Your task to perform on an android device: Search for usb-a on ebay, select the first entry, and add it to the cart. Image 0: 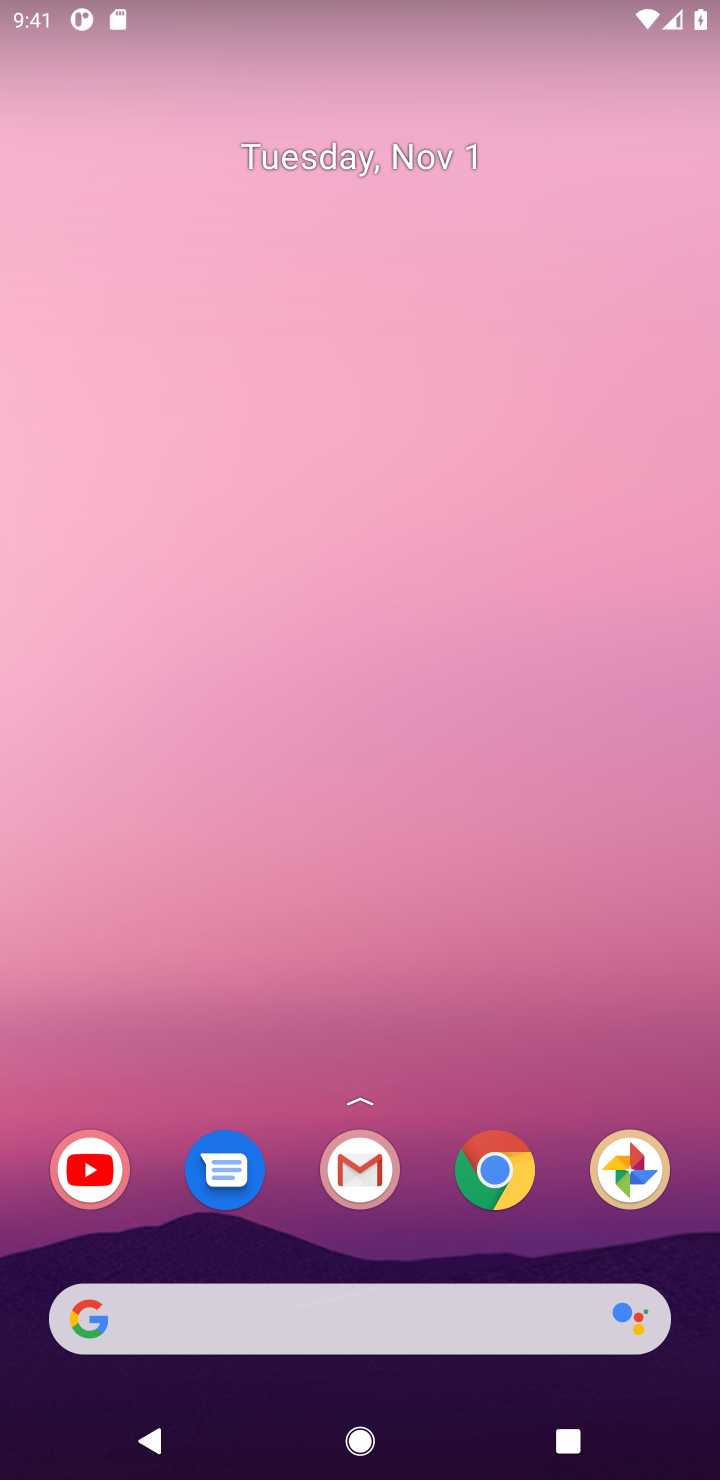
Step 0: click (84, 1317)
Your task to perform on an android device: Search for usb-a on ebay, select the first entry, and add it to the cart. Image 1: 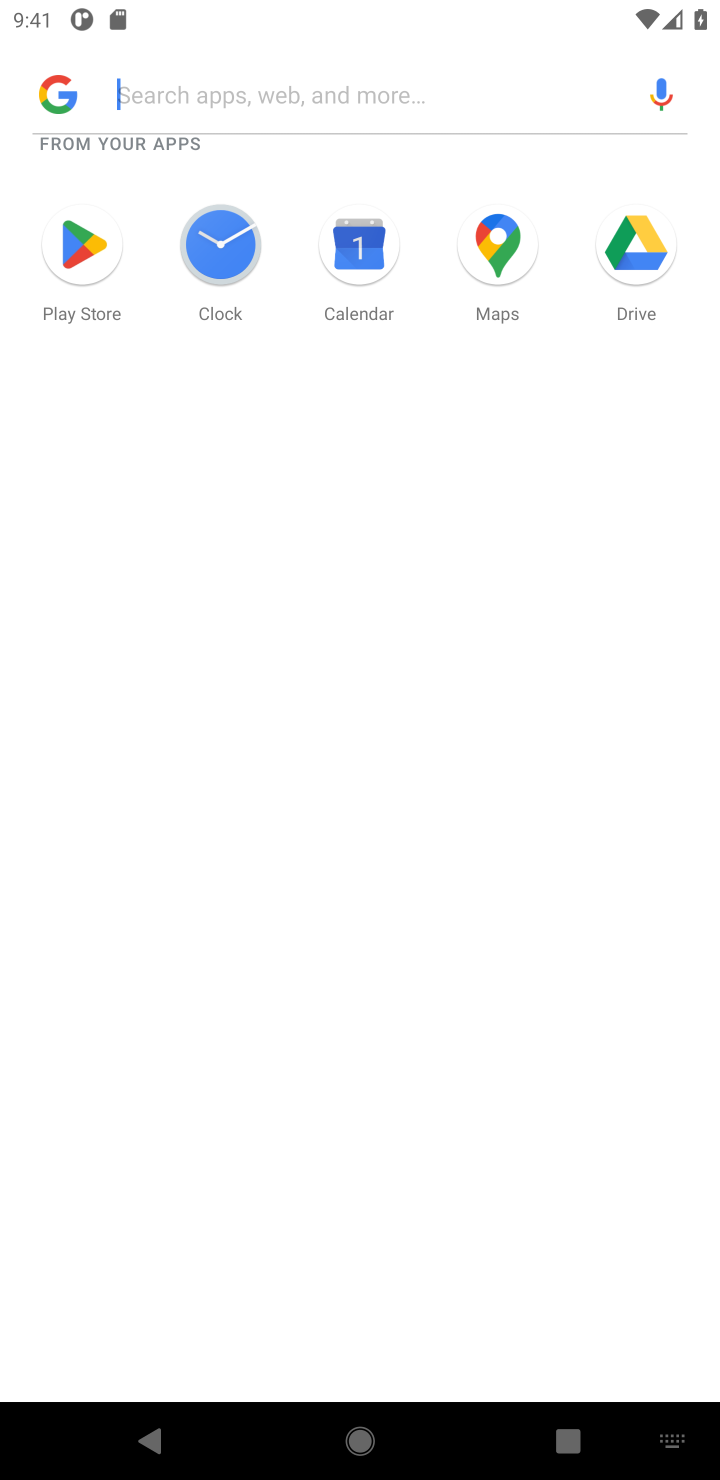
Step 1: press home button
Your task to perform on an android device: Search for usb-a on ebay, select the first entry, and add it to the cart. Image 2: 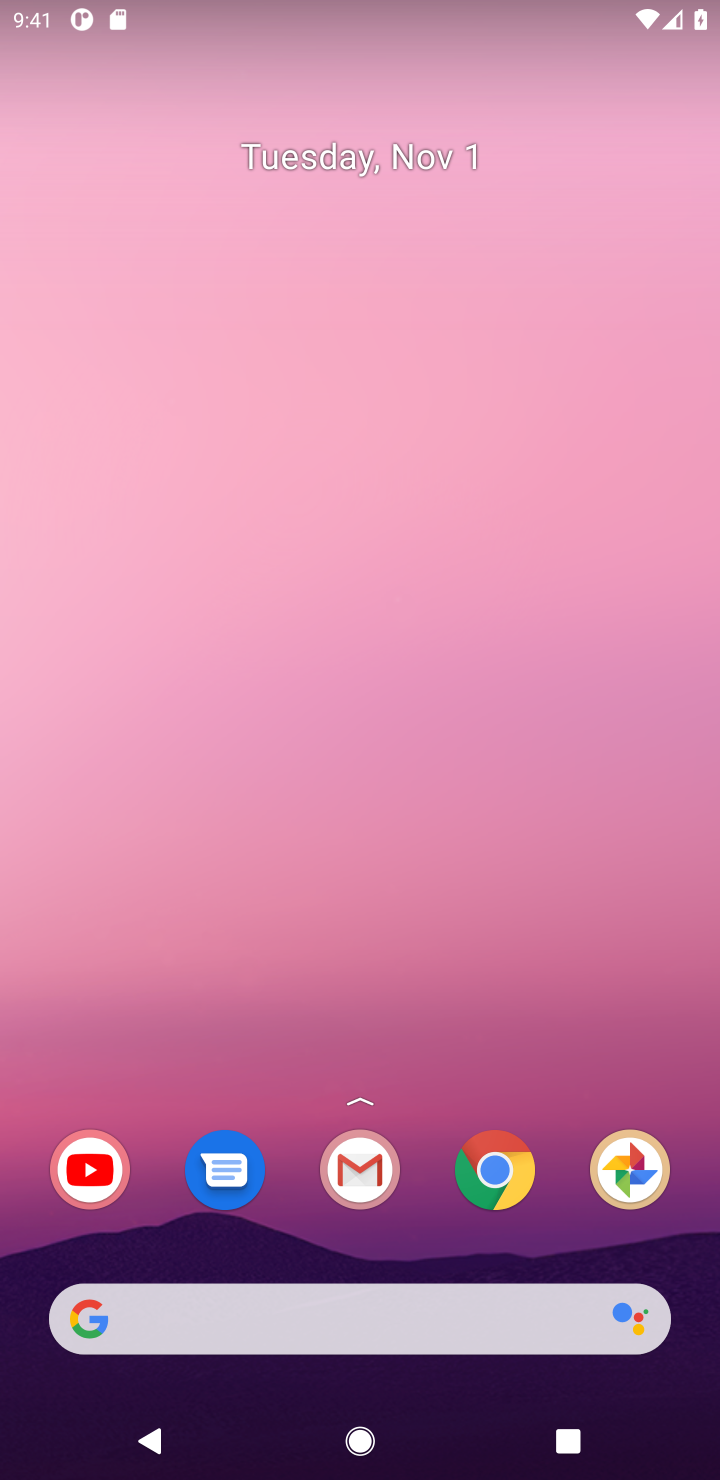
Step 2: click (489, 1169)
Your task to perform on an android device: Search for usb-a on ebay, select the first entry, and add it to the cart. Image 3: 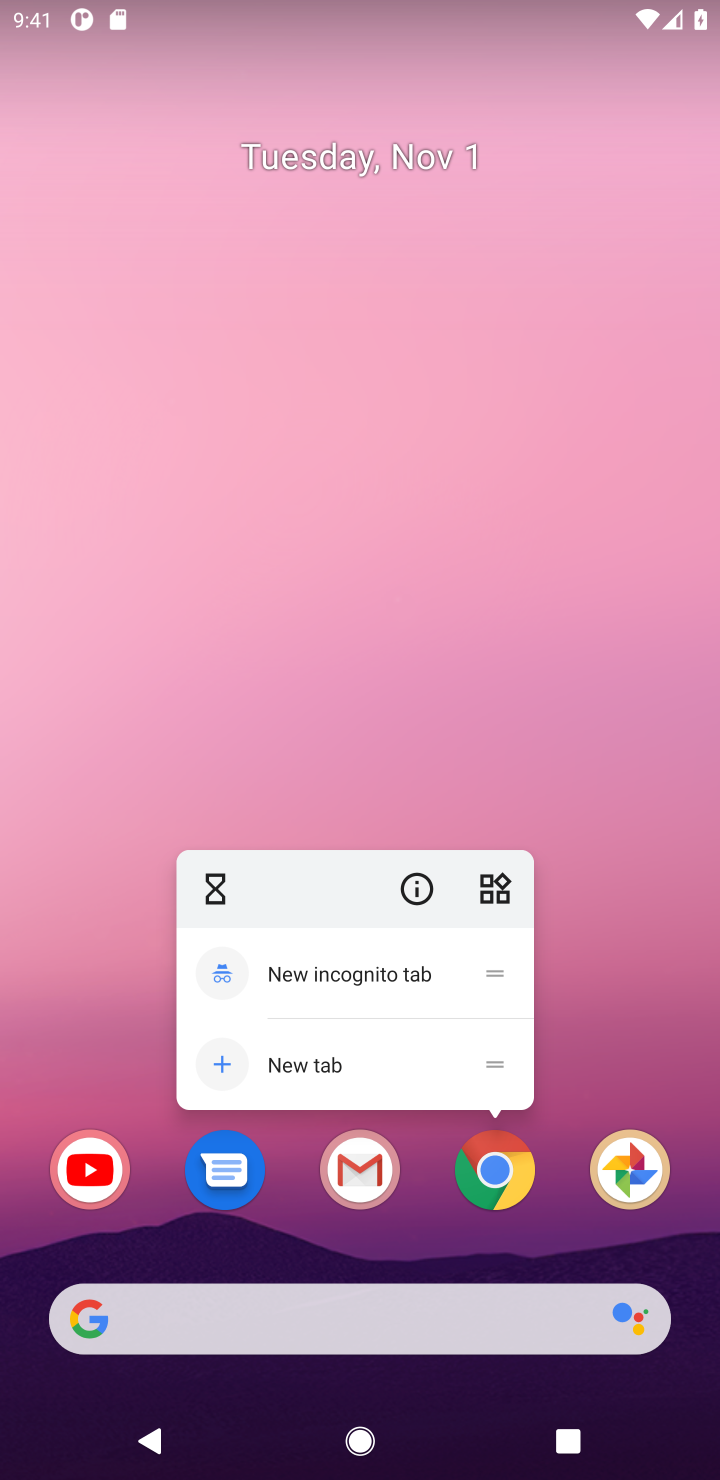
Step 3: click (489, 1169)
Your task to perform on an android device: Search for usb-a on ebay, select the first entry, and add it to the cart. Image 4: 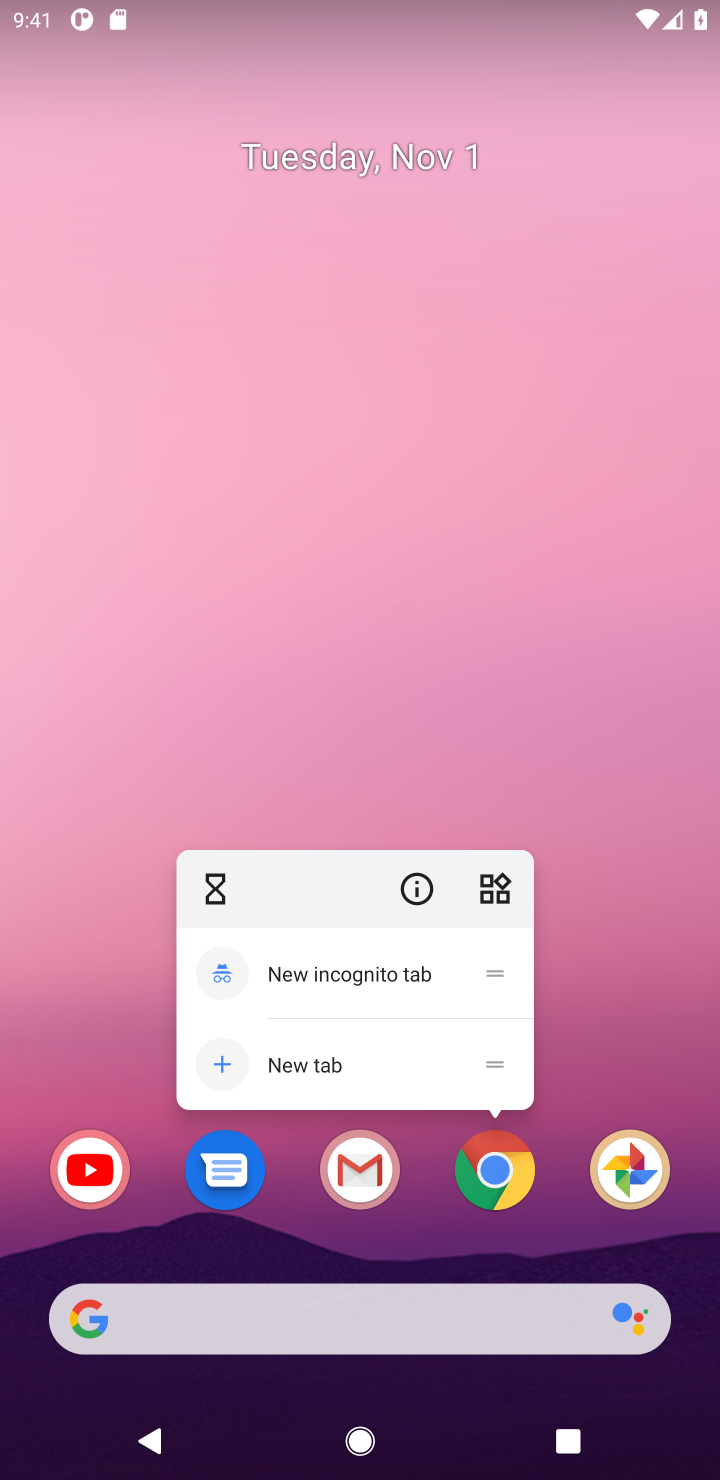
Step 4: click (491, 1175)
Your task to perform on an android device: Search for usb-a on ebay, select the first entry, and add it to the cart. Image 5: 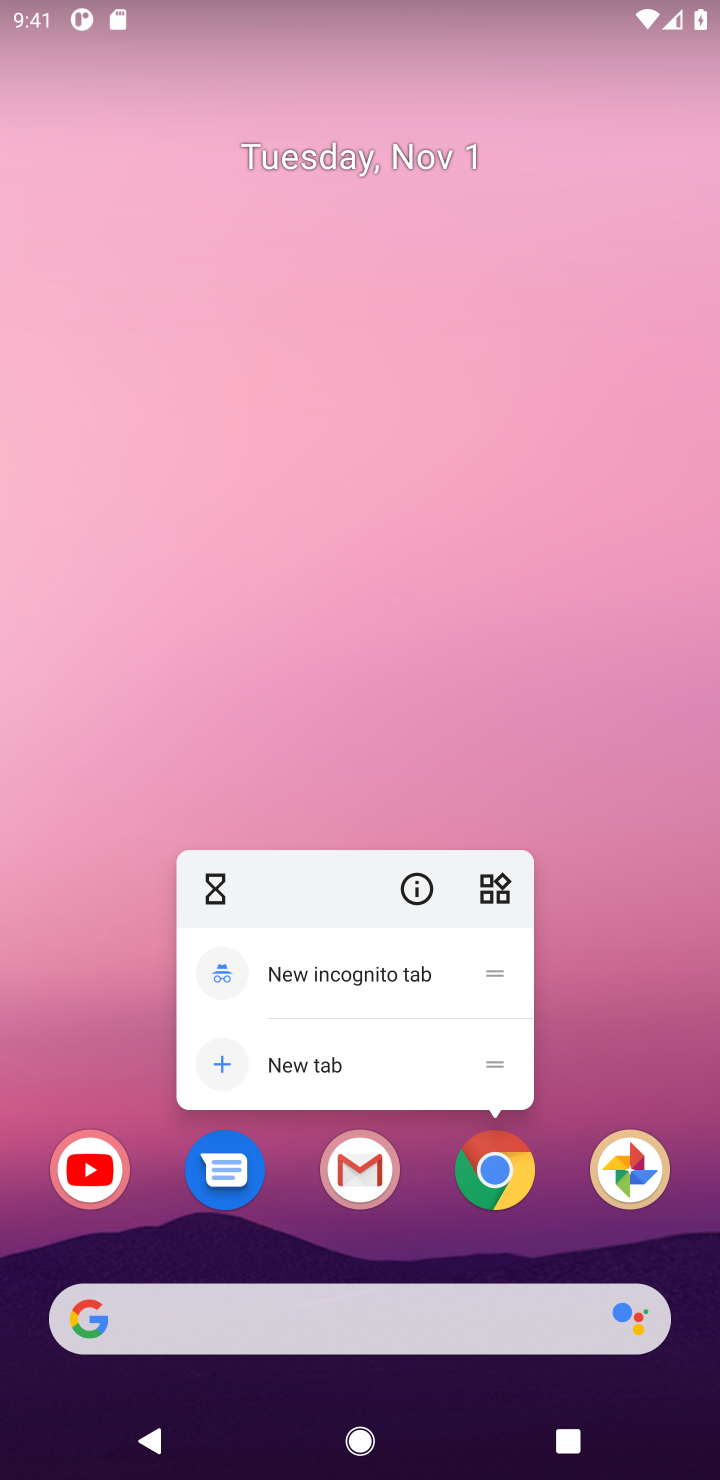
Step 5: click (488, 1148)
Your task to perform on an android device: Search for usb-a on ebay, select the first entry, and add it to the cart. Image 6: 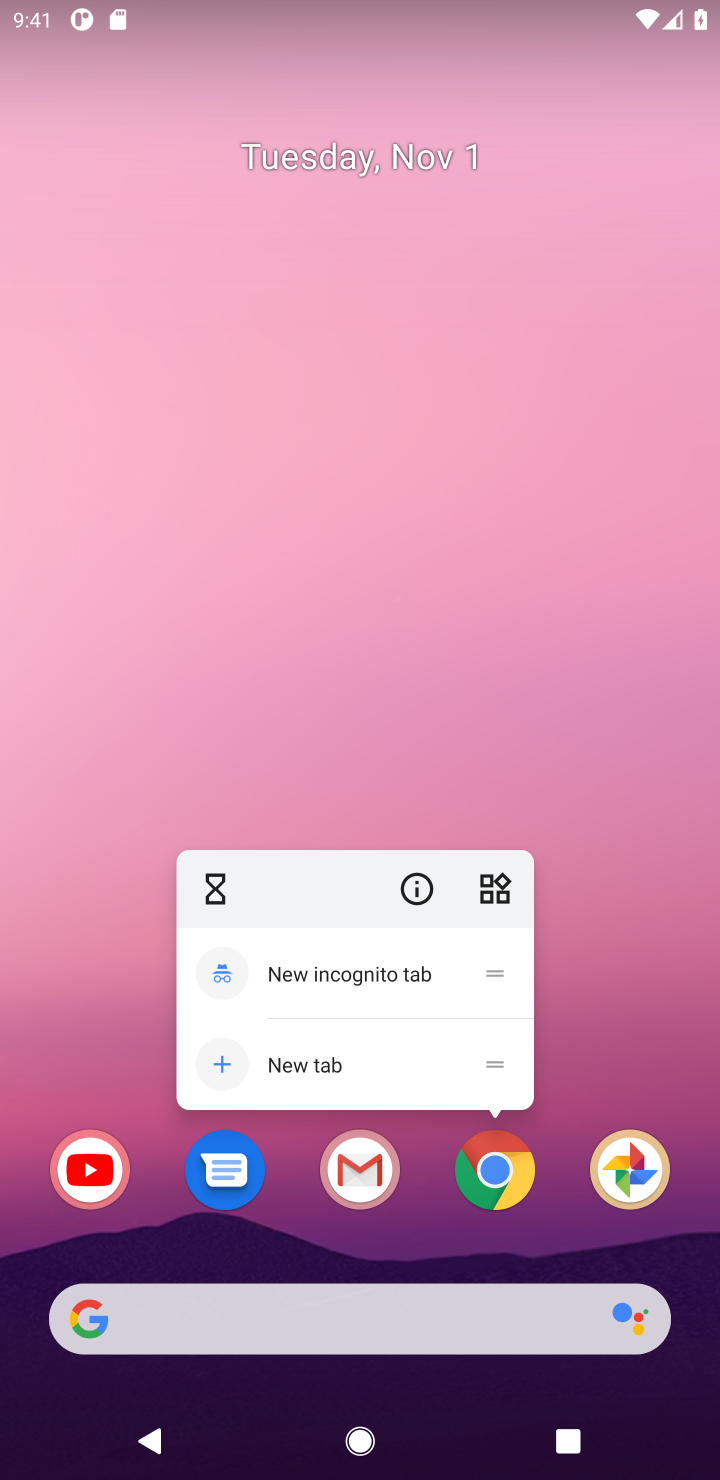
Step 6: click (488, 1148)
Your task to perform on an android device: Search for usb-a on ebay, select the first entry, and add it to the cart. Image 7: 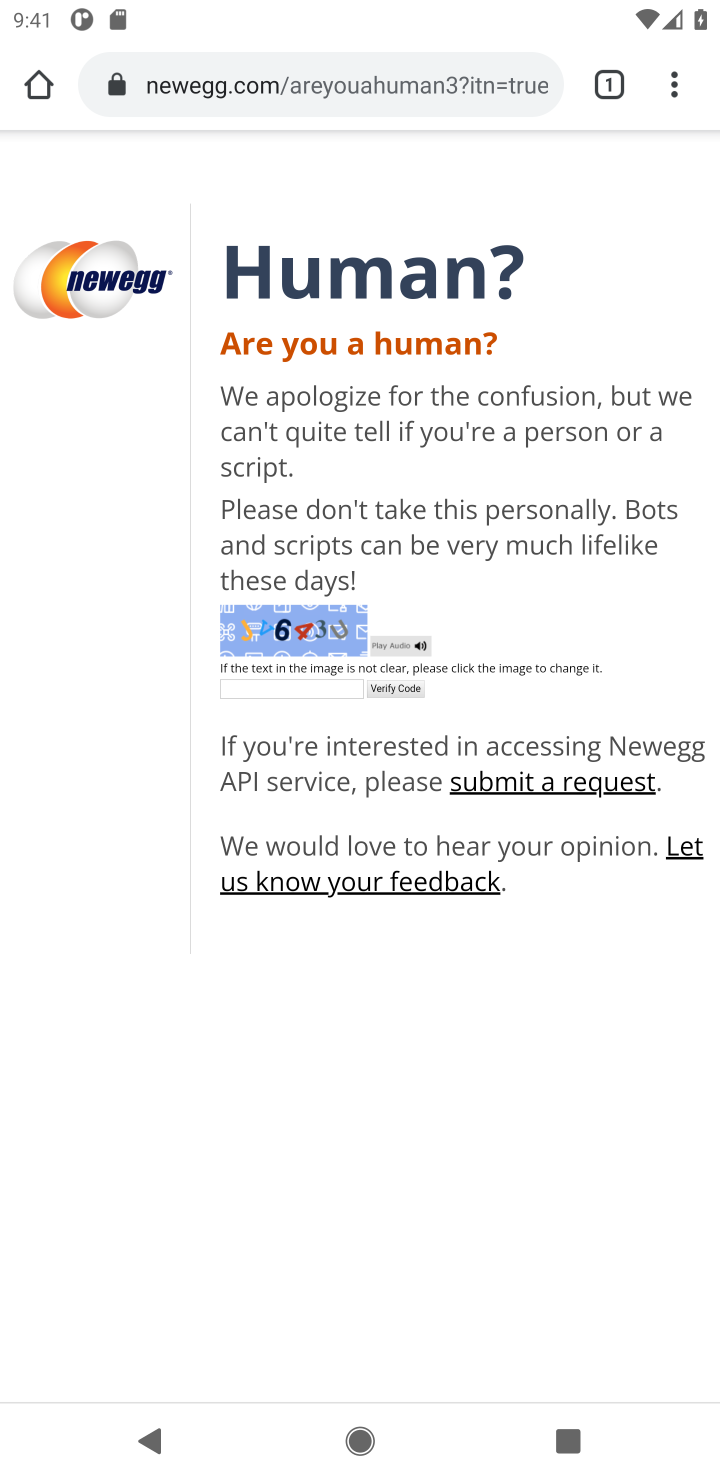
Step 7: click (287, 75)
Your task to perform on an android device: Search for usb-a on ebay, select the first entry, and add it to the cart. Image 8: 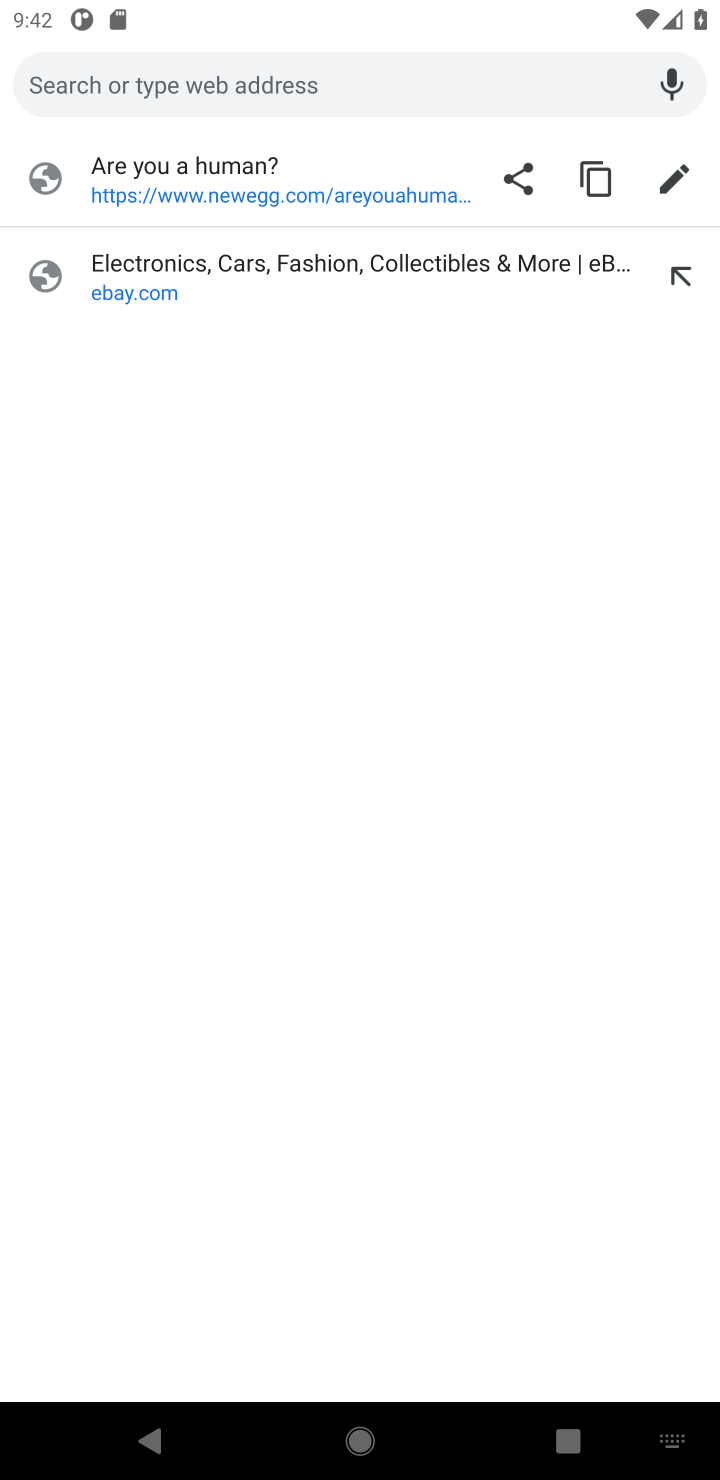
Step 8: type "ebay"
Your task to perform on an android device: Search for usb-a on ebay, select the first entry, and add it to the cart. Image 9: 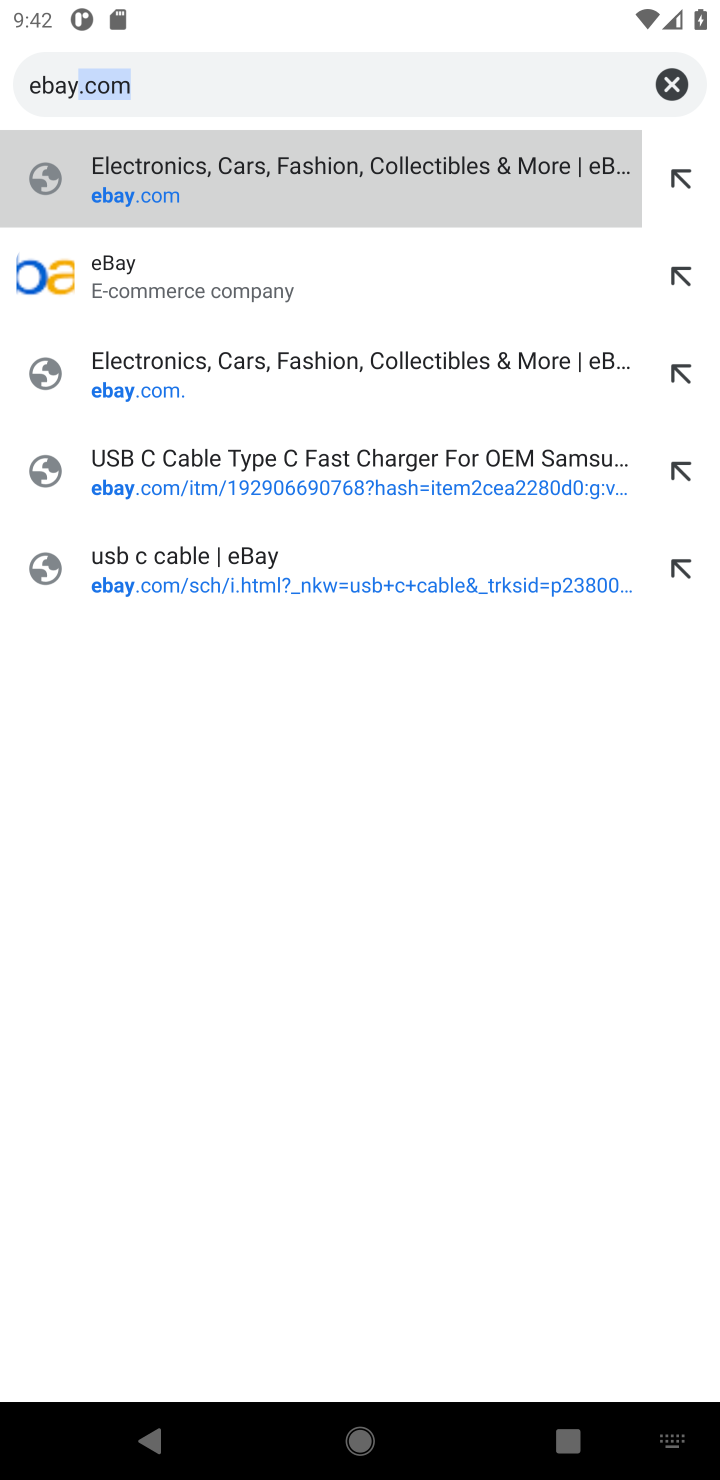
Step 9: click (154, 176)
Your task to perform on an android device: Search for usb-a on ebay, select the first entry, and add it to the cart. Image 10: 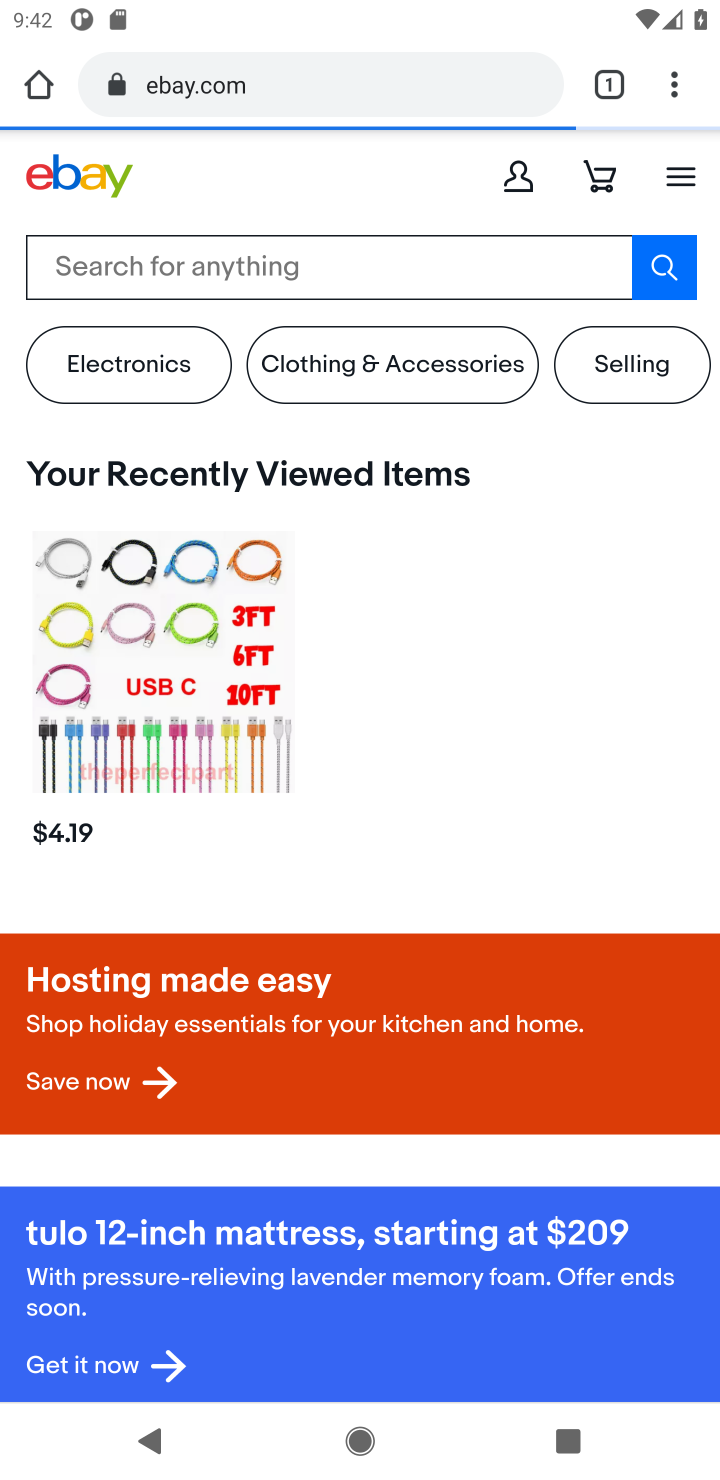
Step 10: click (234, 254)
Your task to perform on an android device: Search for usb-a on ebay, select the first entry, and add it to the cart. Image 11: 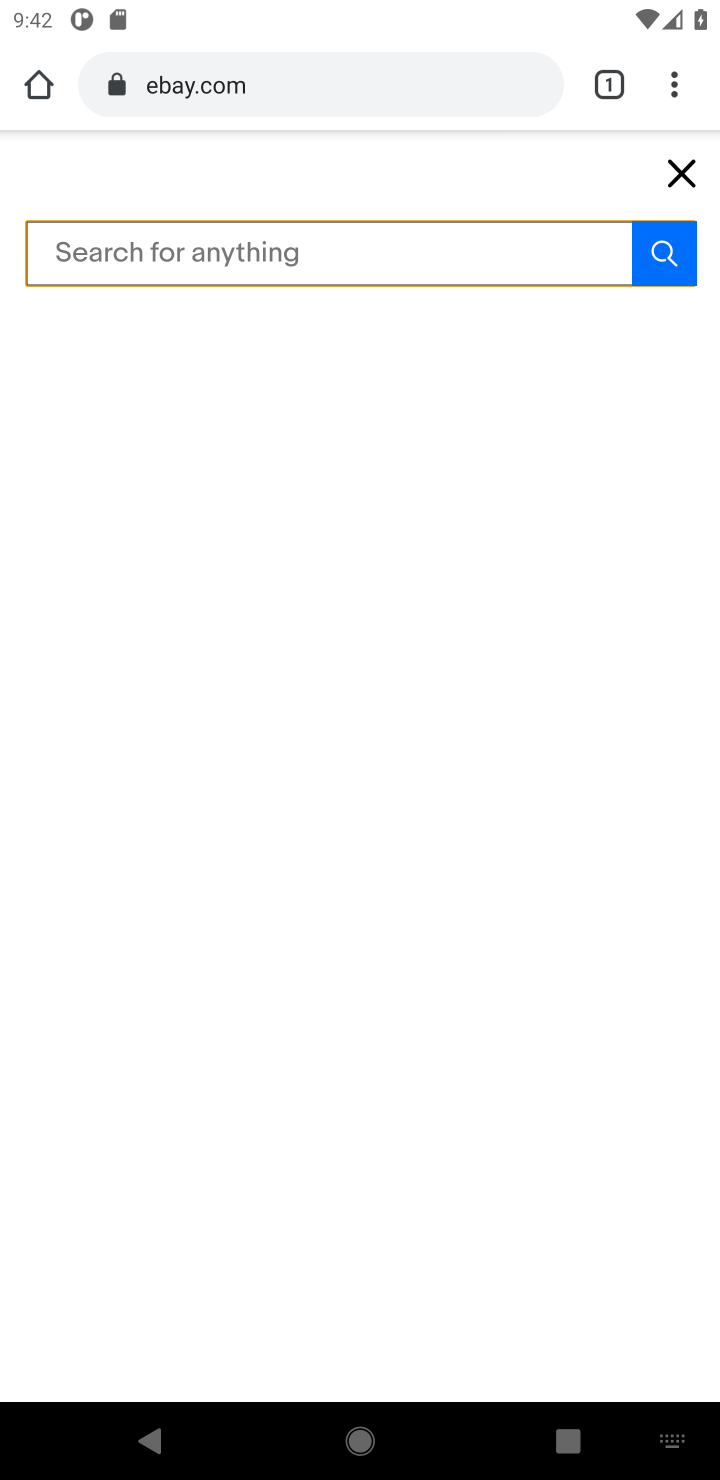
Step 11: type "usb-a"
Your task to perform on an android device: Search for usb-a on ebay, select the first entry, and add it to the cart. Image 12: 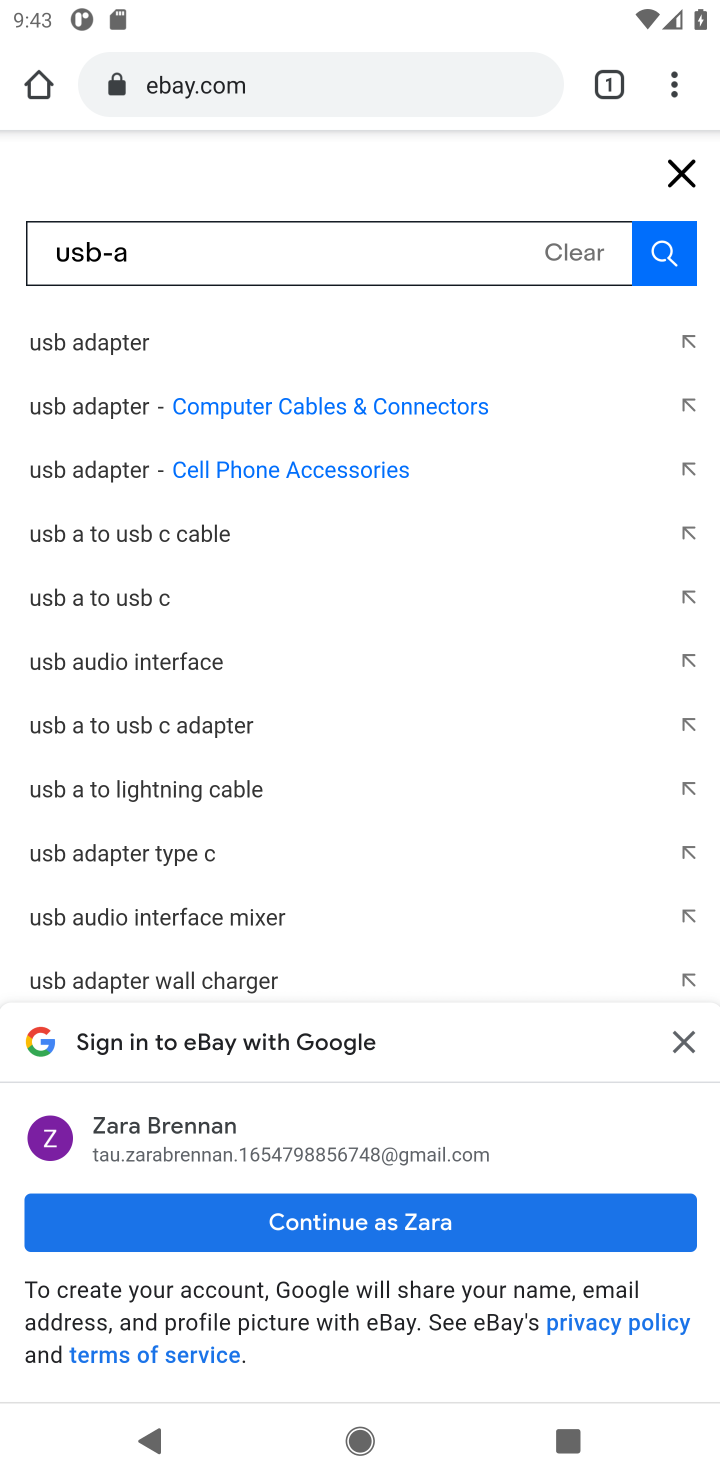
Step 12: click (146, 342)
Your task to perform on an android device: Search for usb-a on ebay, select the first entry, and add it to the cart. Image 13: 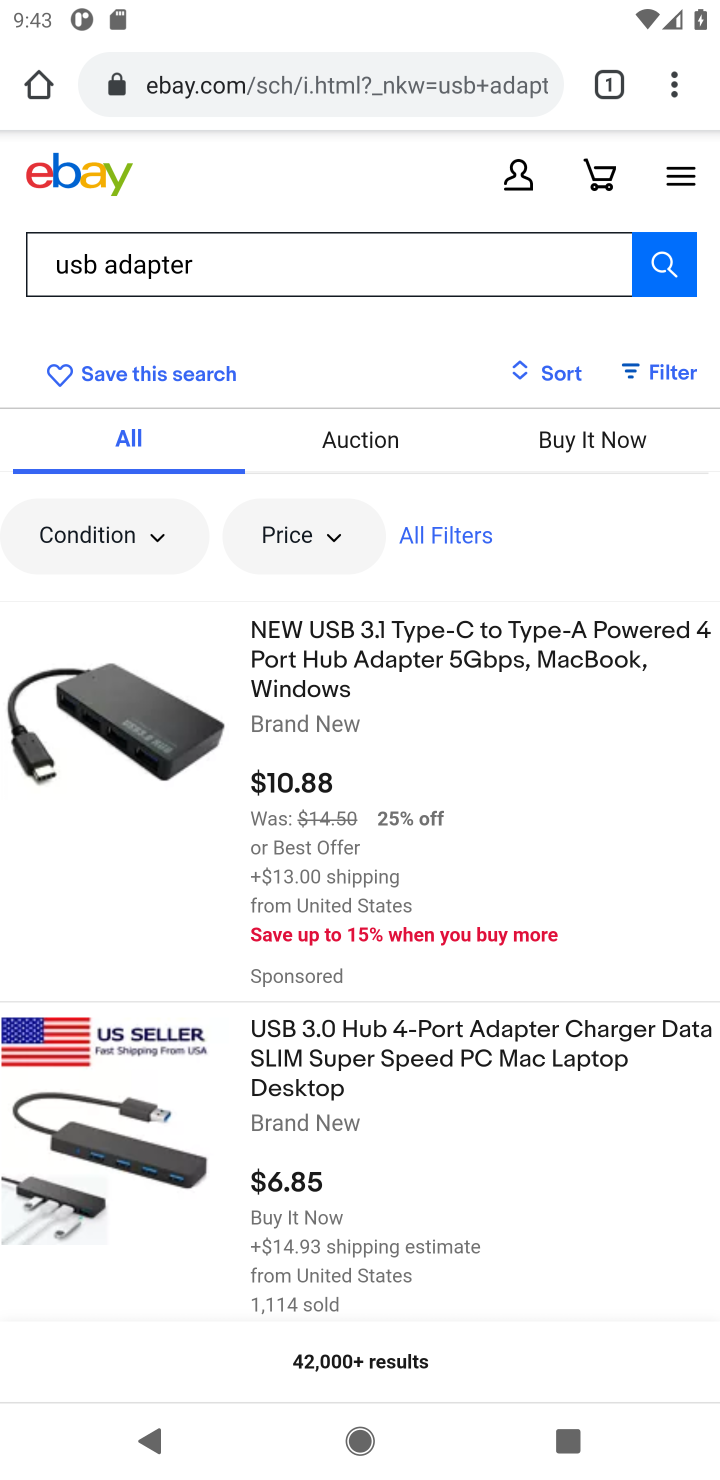
Step 13: click (333, 674)
Your task to perform on an android device: Search for usb-a on ebay, select the first entry, and add it to the cart. Image 14: 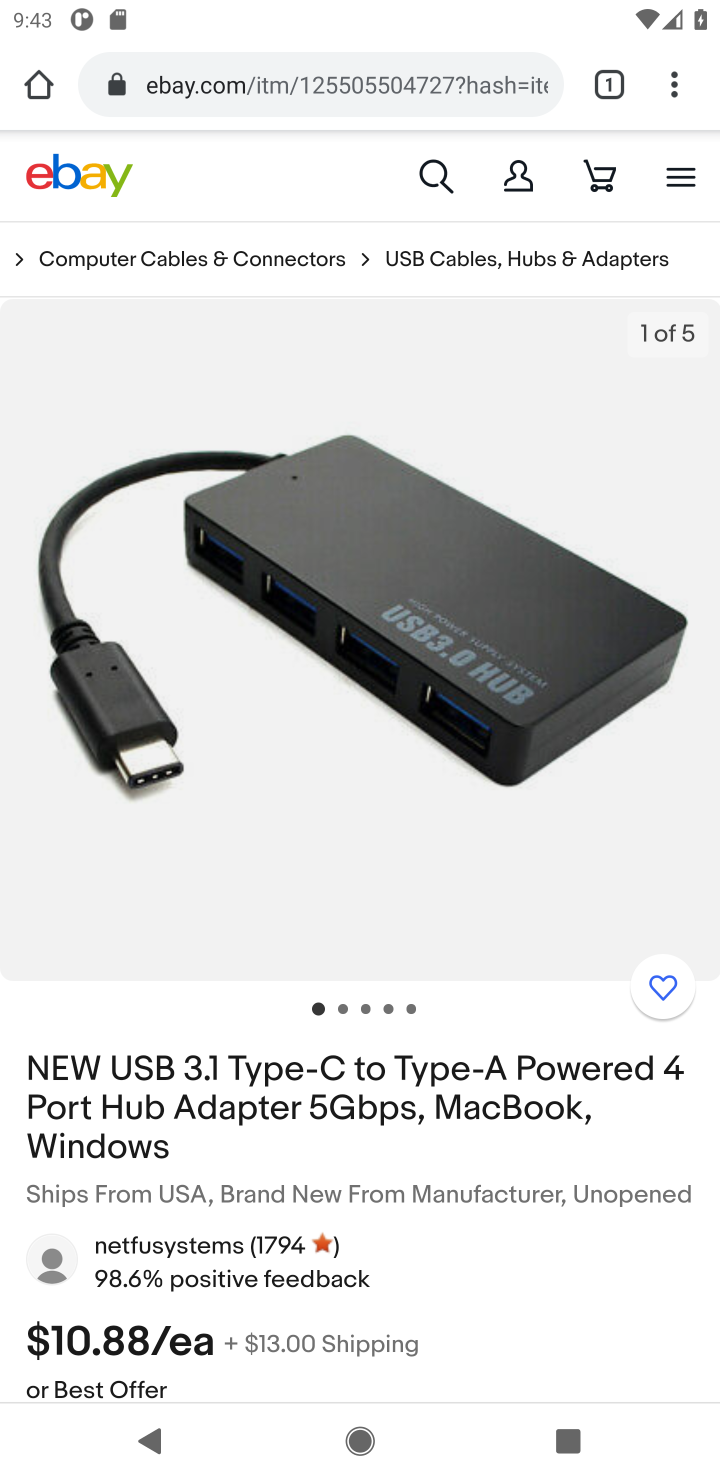
Step 14: drag from (466, 1217) to (418, 360)
Your task to perform on an android device: Search for usb-a on ebay, select the first entry, and add it to the cart. Image 15: 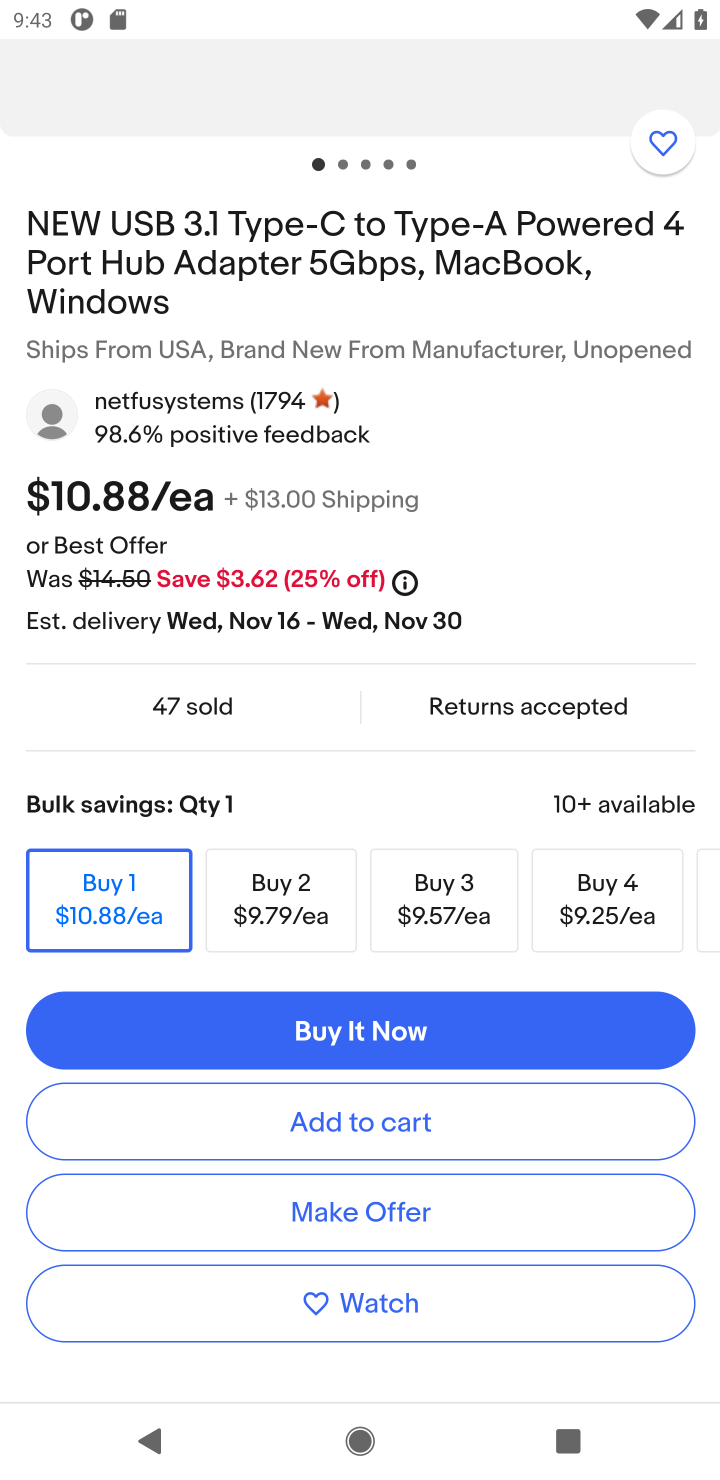
Step 15: click (359, 1118)
Your task to perform on an android device: Search for usb-a on ebay, select the first entry, and add it to the cart. Image 16: 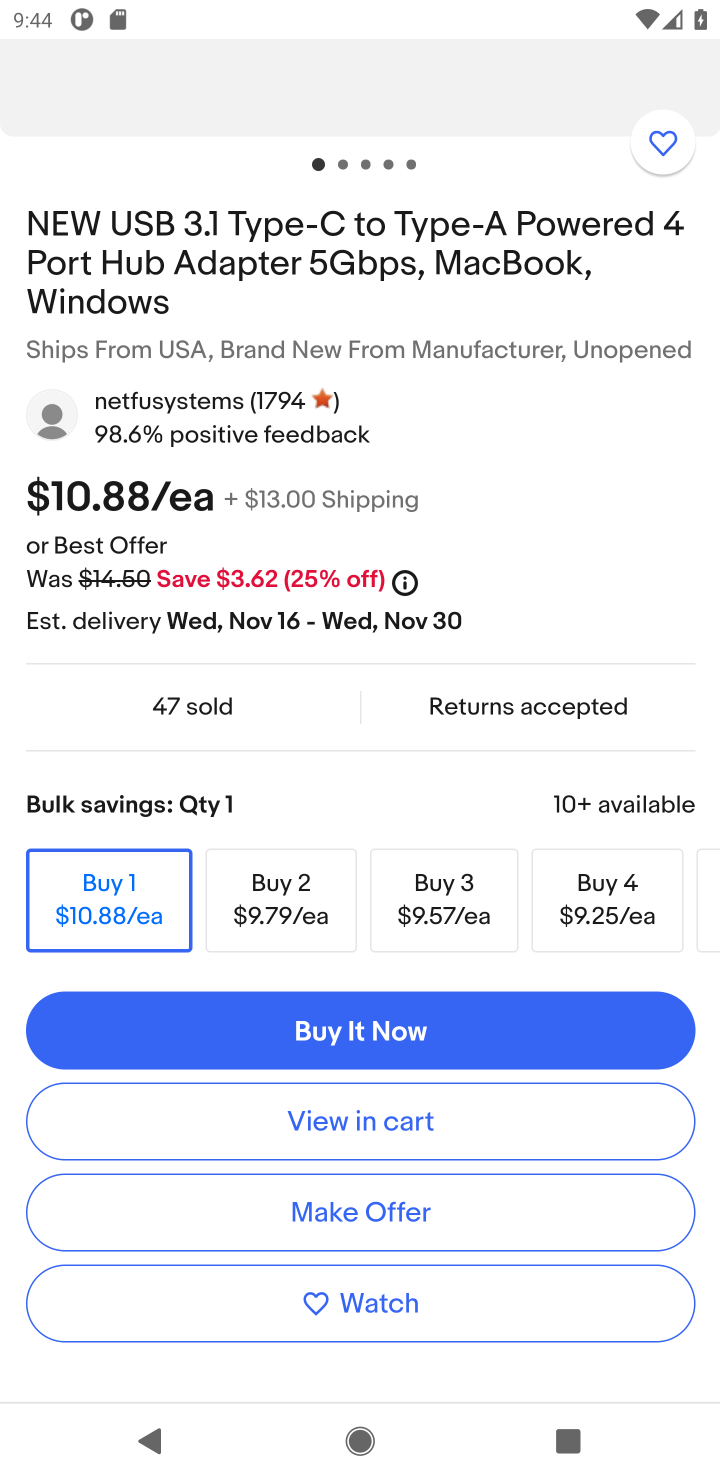
Step 16: click (447, 1032)
Your task to perform on an android device: Search for usb-a on ebay, select the first entry, and add it to the cart. Image 17: 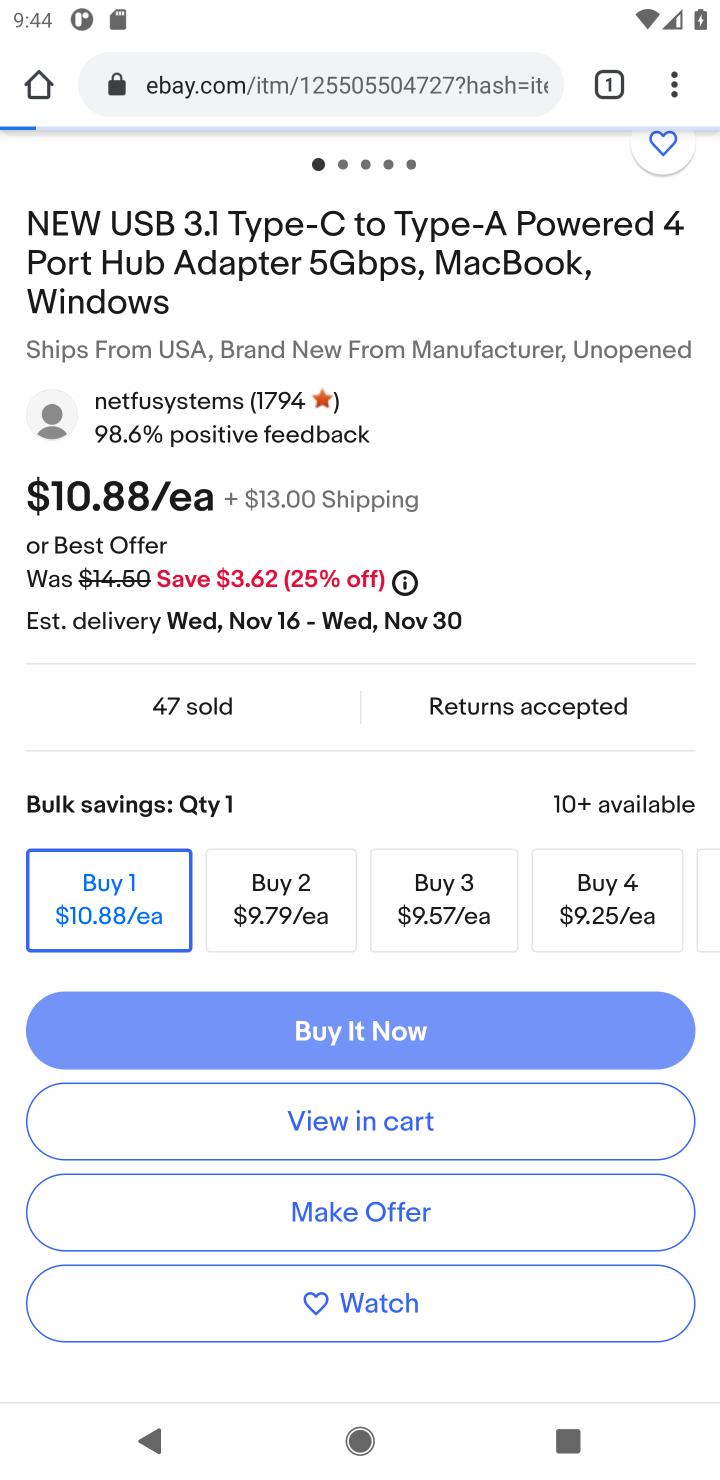
Step 17: task complete